Your task to perform on an android device: read, delete, or share a saved page in the chrome app Image 0: 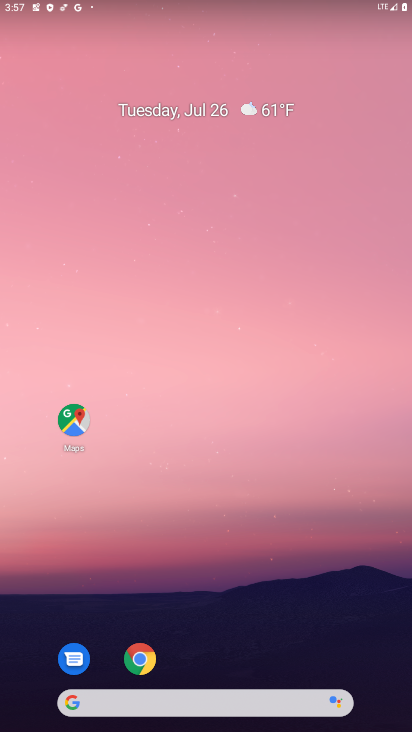
Step 0: drag from (324, 610) to (234, 44)
Your task to perform on an android device: read, delete, or share a saved page in the chrome app Image 1: 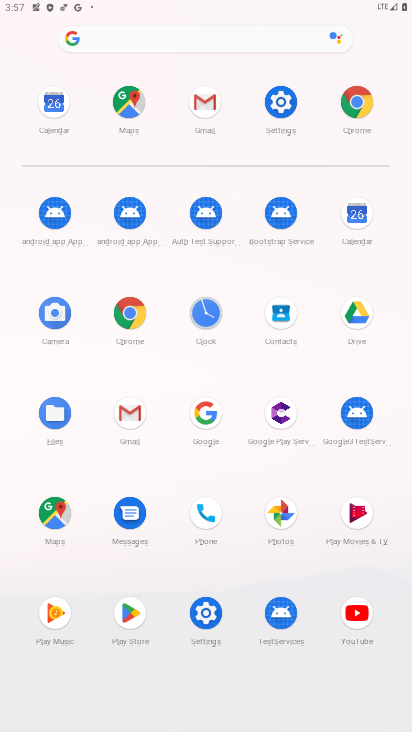
Step 1: click (356, 101)
Your task to perform on an android device: read, delete, or share a saved page in the chrome app Image 2: 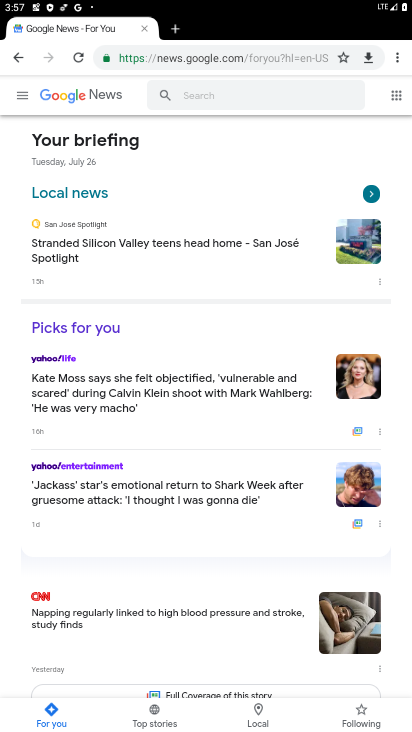
Step 2: task complete